Your task to perform on an android device: turn on sleep mode Image 0: 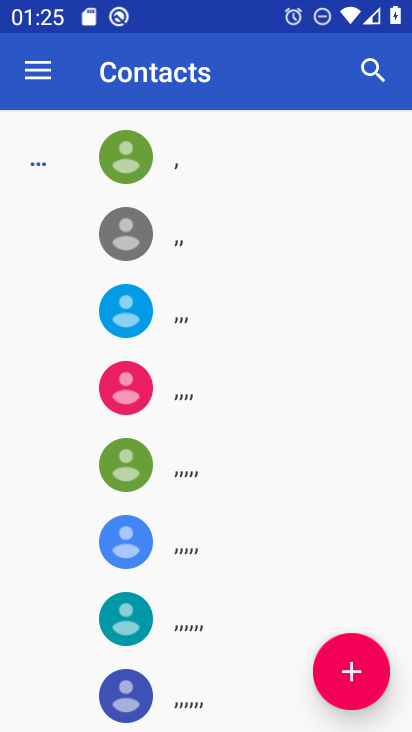
Step 0: press home button
Your task to perform on an android device: turn on sleep mode Image 1: 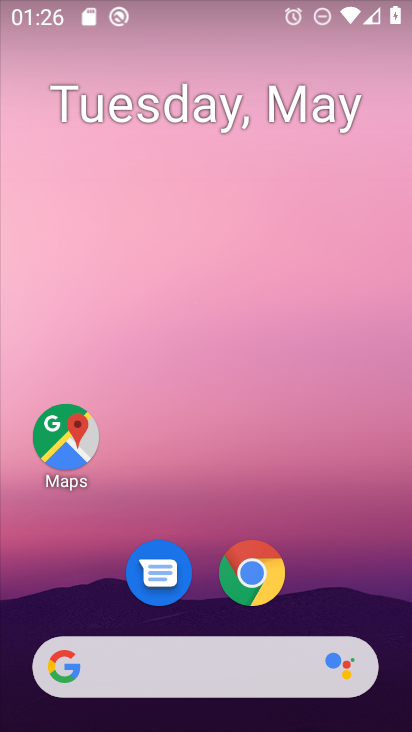
Step 1: drag from (282, 662) to (262, 46)
Your task to perform on an android device: turn on sleep mode Image 2: 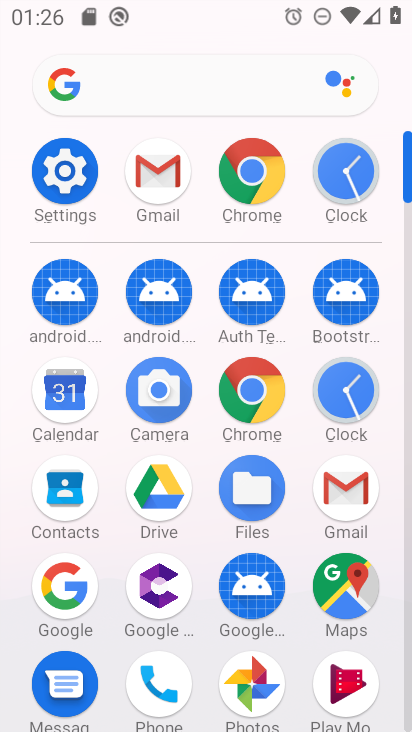
Step 2: click (57, 189)
Your task to perform on an android device: turn on sleep mode Image 3: 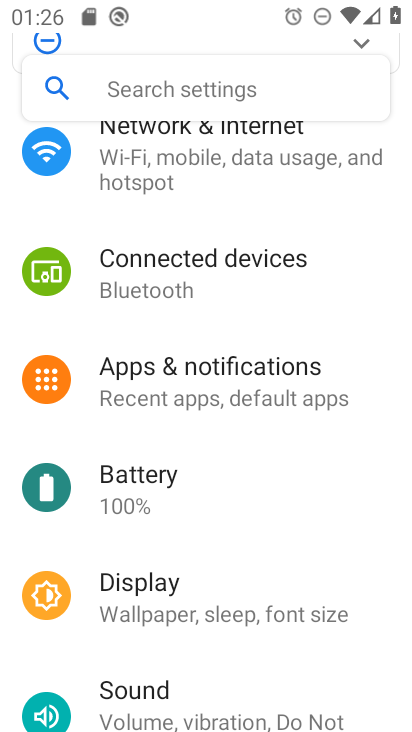
Step 3: click (278, 605)
Your task to perform on an android device: turn on sleep mode Image 4: 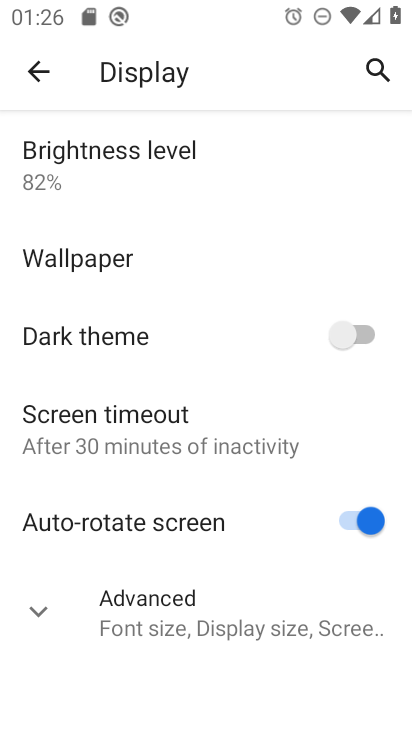
Step 4: click (172, 632)
Your task to perform on an android device: turn on sleep mode Image 5: 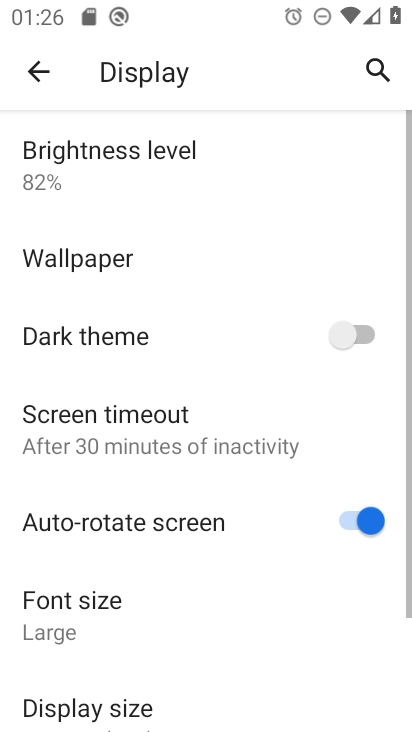
Step 5: task complete